Your task to perform on an android device: snooze an email in the gmail app Image 0: 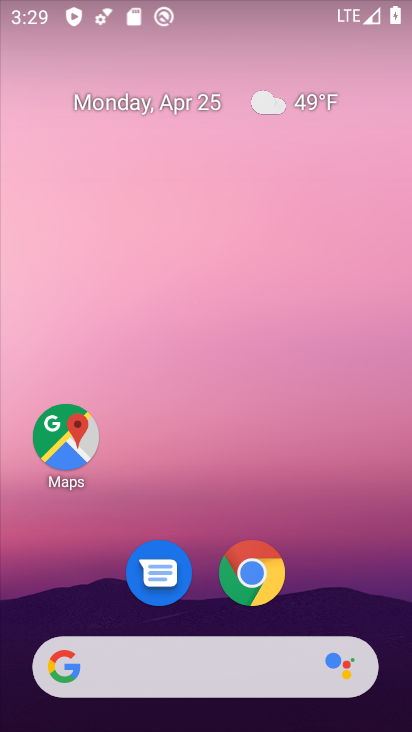
Step 0: drag from (333, 550) to (275, 124)
Your task to perform on an android device: snooze an email in the gmail app Image 1: 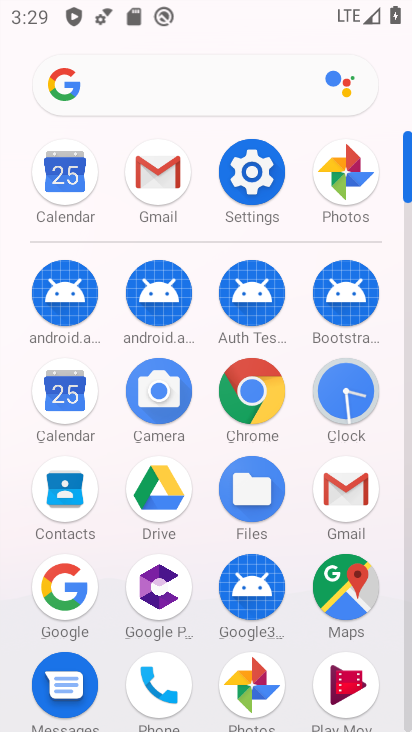
Step 1: click (358, 480)
Your task to perform on an android device: snooze an email in the gmail app Image 2: 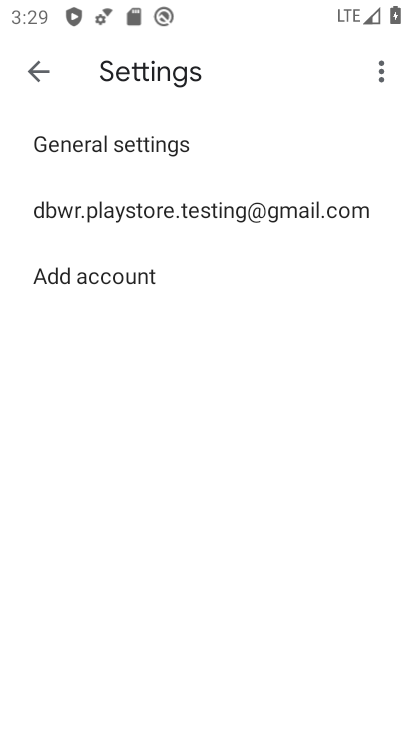
Step 2: click (36, 77)
Your task to perform on an android device: snooze an email in the gmail app Image 3: 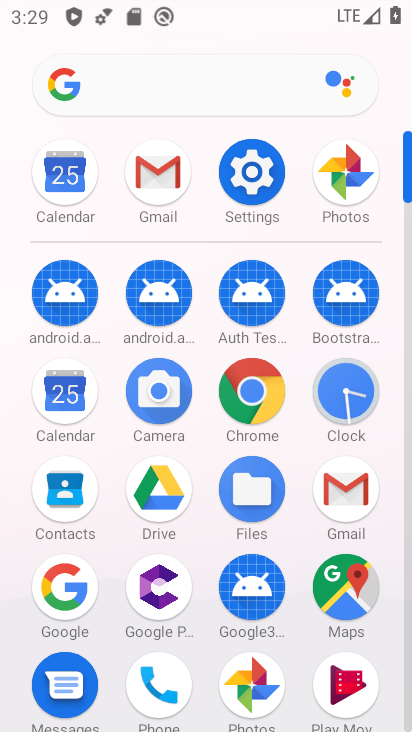
Step 3: click (344, 493)
Your task to perform on an android device: snooze an email in the gmail app Image 4: 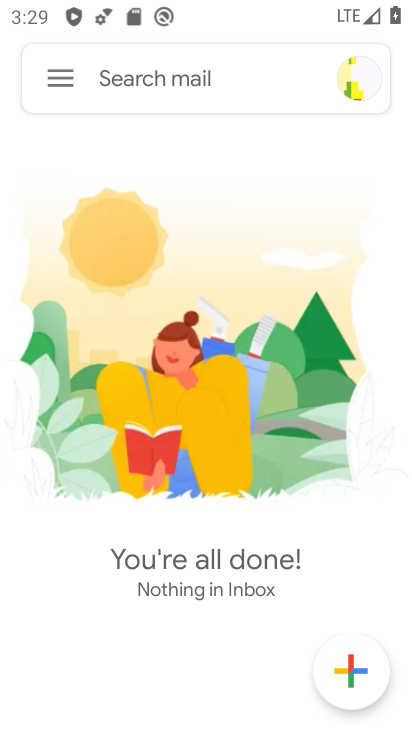
Step 4: task complete